Your task to perform on an android device: open chrome privacy settings Image 0: 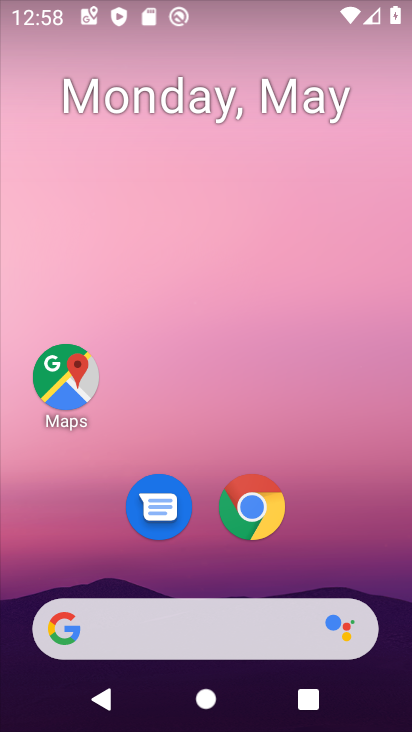
Step 0: click (256, 510)
Your task to perform on an android device: open chrome privacy settings Image 1: 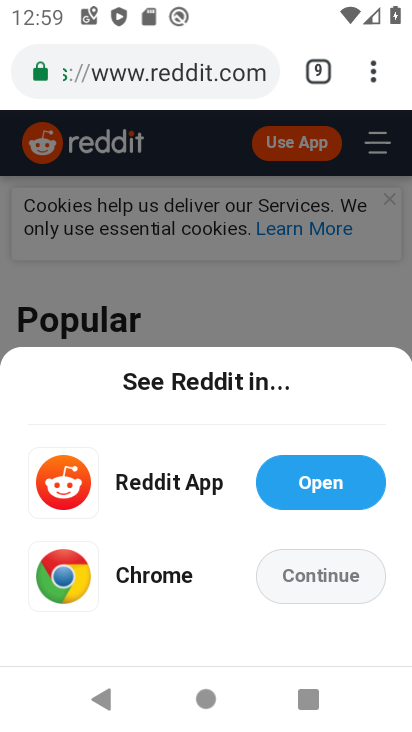
Step 1: click (374, 77)
Your task to perform on an android device: open chrome privacy settings Image 2: 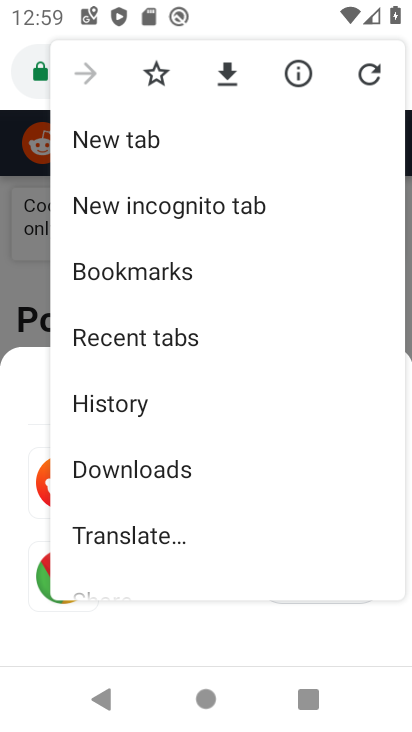
Step 2: drag from (124, 564) to (110, 102)
Your task to perform on an android device: open chrome privacy settings Image 3: 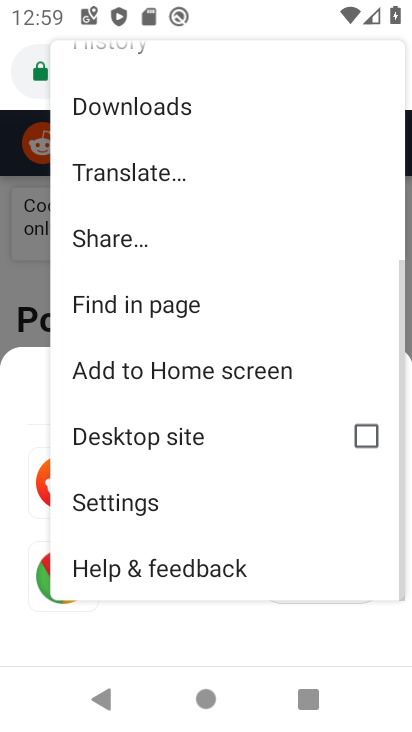
Step 3: click (121, 501)
Your task to perform on an android device: open chrome privacy settings Image 4: 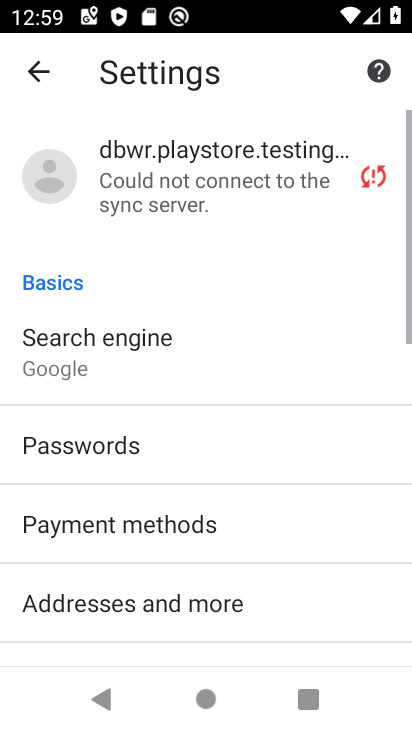
Step 4: drag from (120, 546) to (112, 157)
Your task to perform on an android device: open chrome privacy settings Image 5: 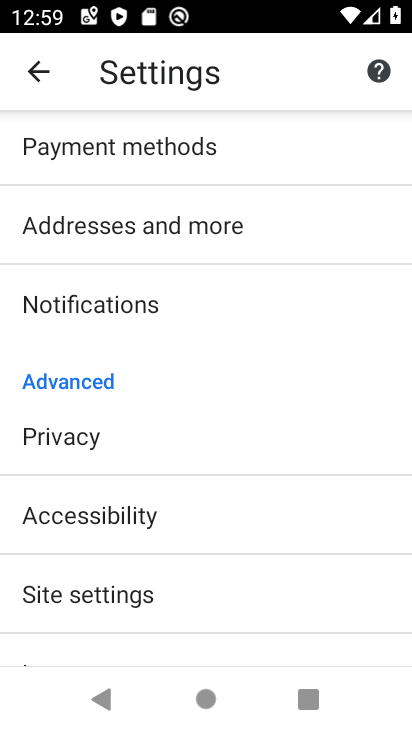
Step 5: click (55, 434)
Your task to perform on an android device: open chrome privacy settings Image 6: 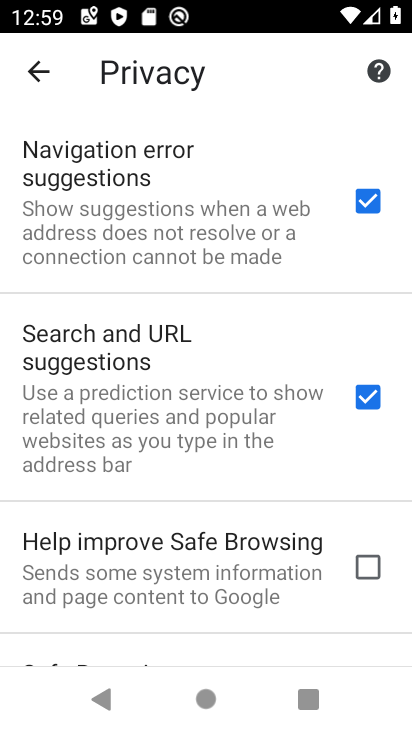
Step 6: task complete